Your task to perform on an android device: What's the weather going to be this weekend? Image 0: 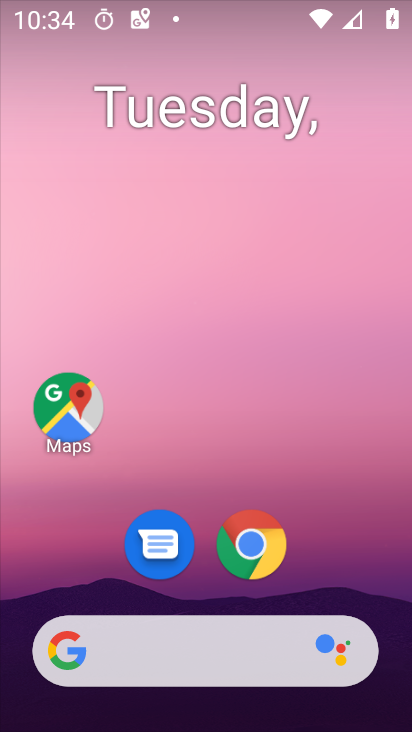
Step 0: click (269, 560)
Your task to perform on an android device: What's the weather going to be this weekend? Image 1: 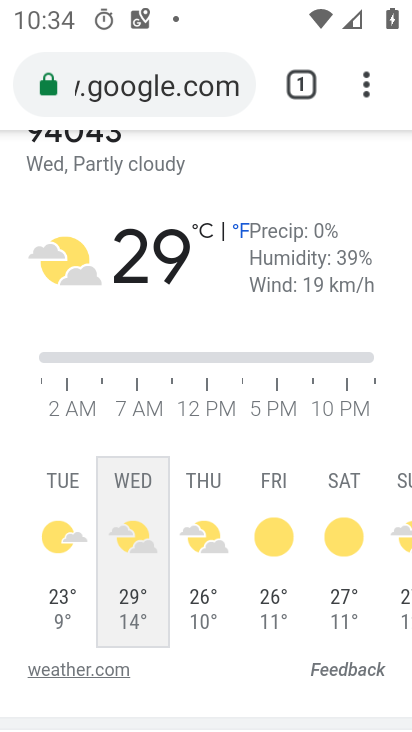
Step 1: click (167, 86)
Your task to perform on an android device: What's the weather going to be this weekend? Image 2: 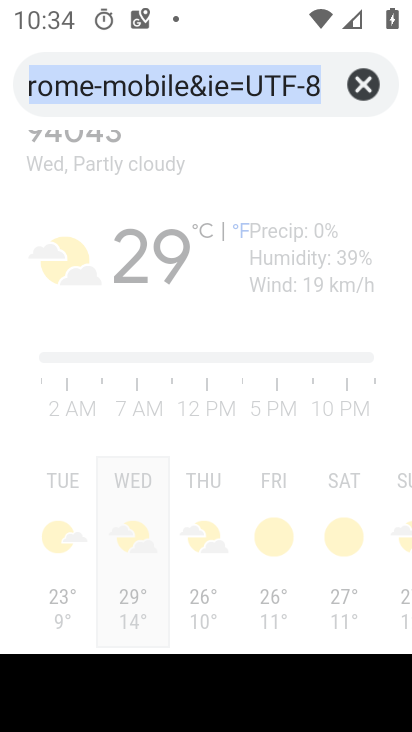
Step 2: type "What's the weather going to be this weekend?"
Your task to perform on an android device: What's the weather going to be this weekend? Image 3: 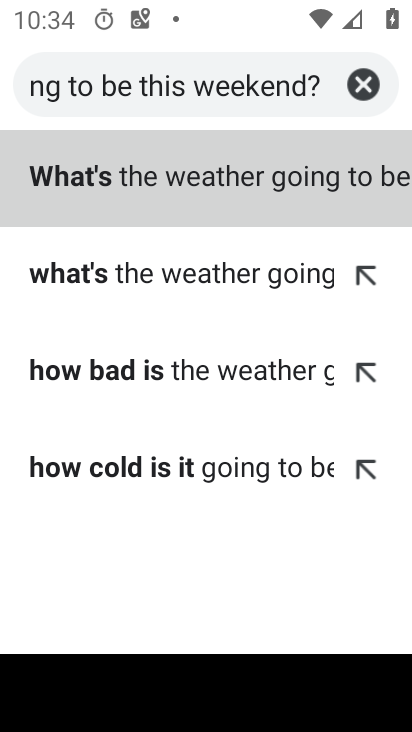
Step 3: click (320, 184)
Your task to perform on an android device: What's the weather going to be this weekend? Image 4: 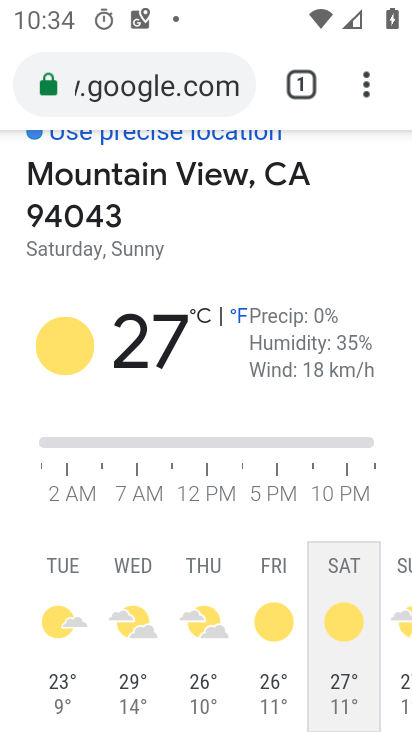
Step 4: task complete